Your task to perform on an android device: toggle wifi Image 0: 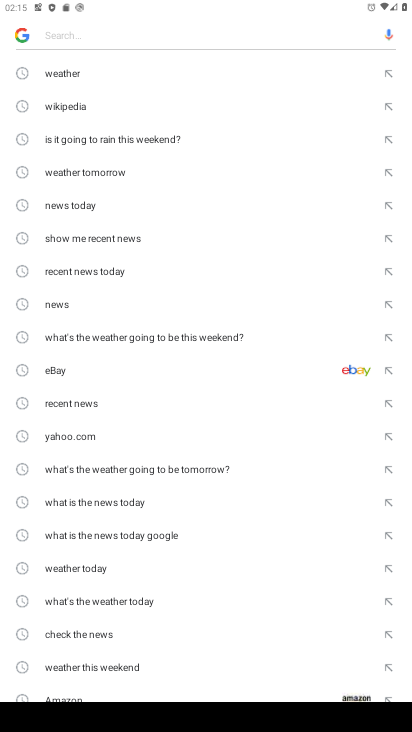
Step 0: press home button
Your task to perform on an android device: toggle wifi Image 1: 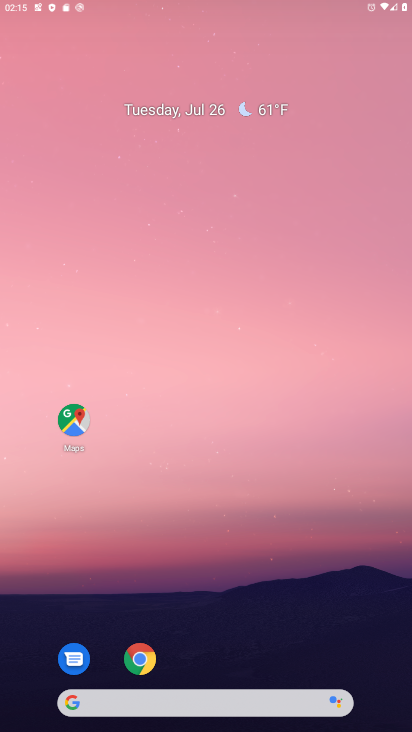
Step 1: drag from (254, 644) to (223, 87)
Your task to perform on an android device: toggle wifi Image 2: 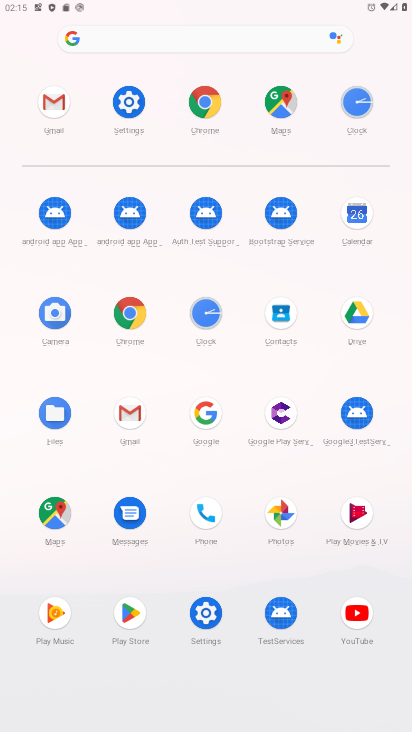
Step 2: click (127, 97)
Your task to perform on an android device: toggle wifi Image 3: 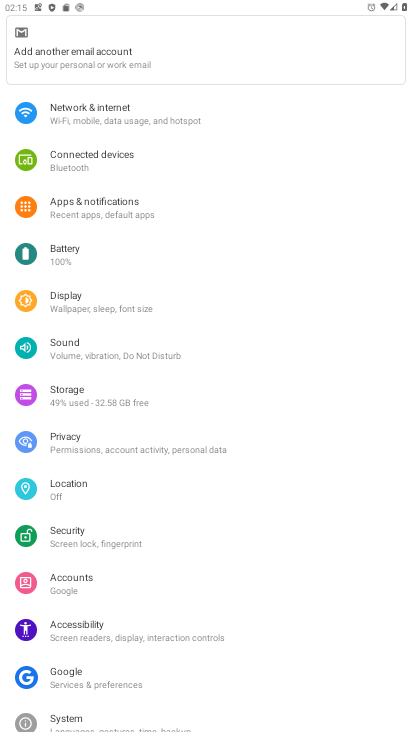
Step 3: click (99, 116)
Your task to perform on an android device: toggle wifi Image 4: 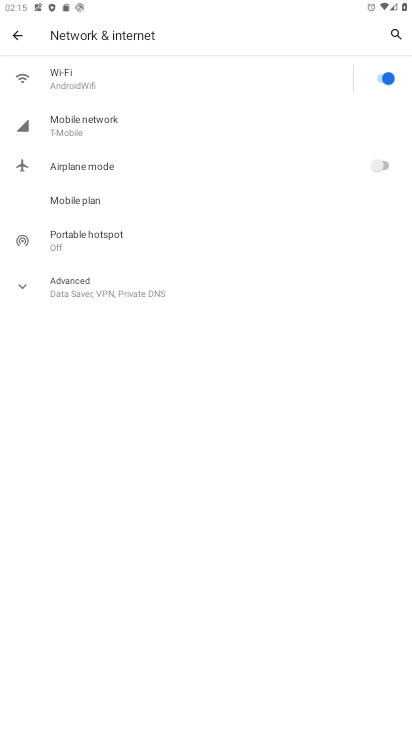
Step 4: click (391, 74)
Your task to perform on an android device: toggle wifi Image 5: 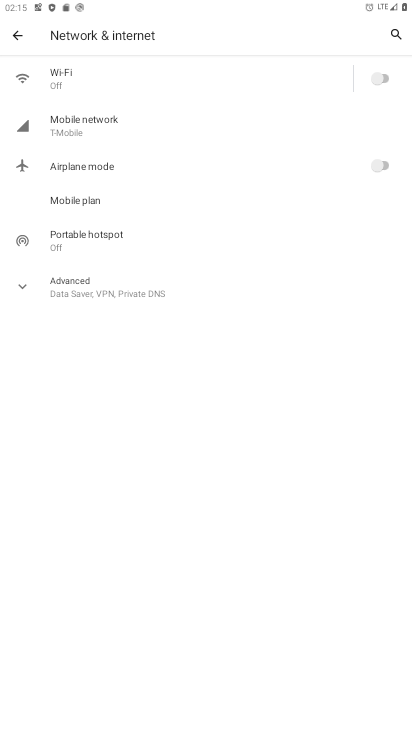
Step 5: task complete